Your task to perform on an android device: What is the news today? Image 0: 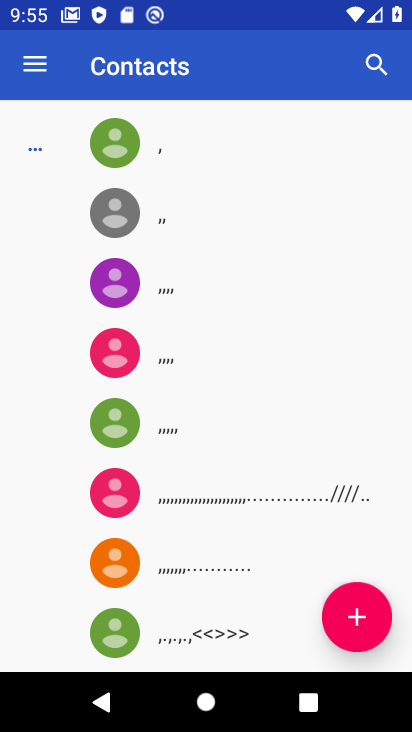
Step 0: press home button
Your task to perform on an android device: What is the news today? Image 1: 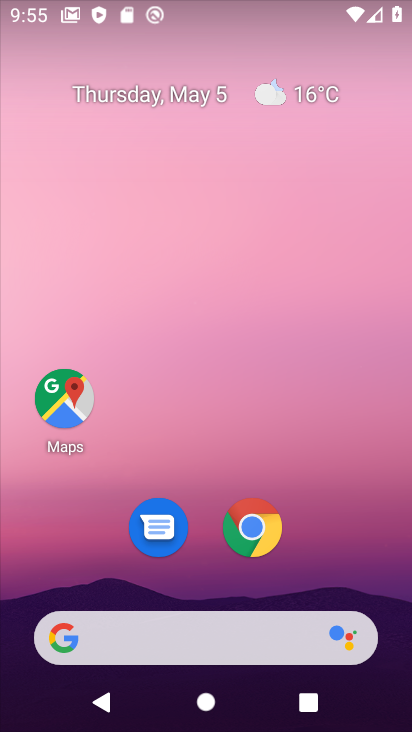
Step 1: click (102, 644)
Your task to perform on an android device: What is the news today? Image 2: 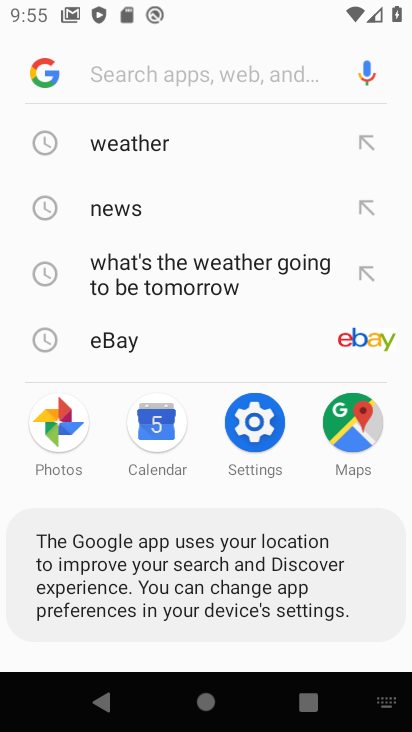
Step 2: click (134, 213)
Your task to perform on an android device: What is the news today? Image 3: 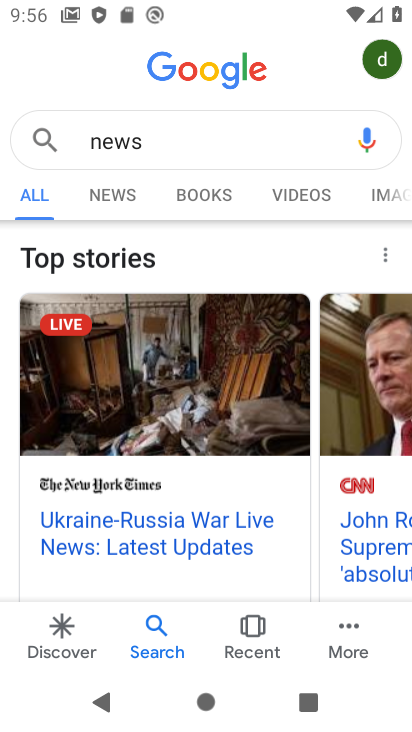
Step 3: task complete